Your task to perform on an android device: turn off improve location accuracy Image 0: 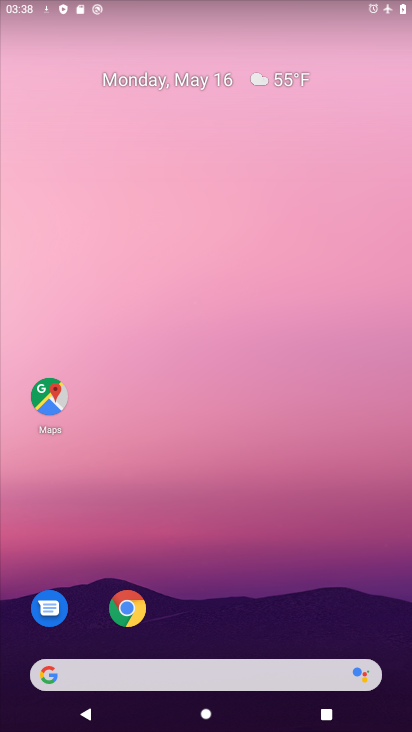
Step 0: drag from (255, 616) to (255, 275)
Your task to perform on an android device: turn off improve location accuracy Image 1: 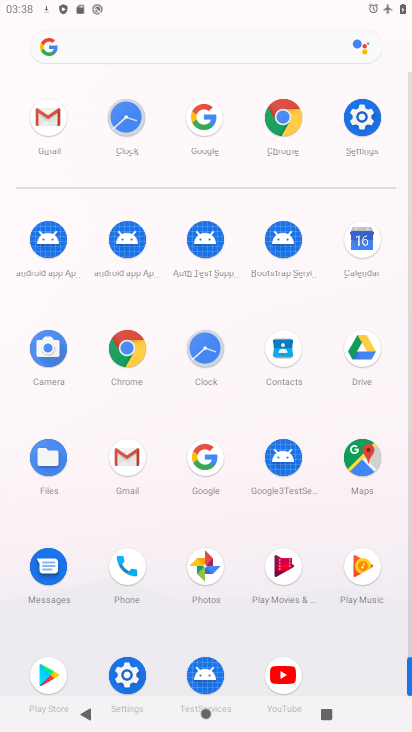
Step 1: click (363, 132)
Your task to perform on an android device: turn off improve location accuracy Image 2: 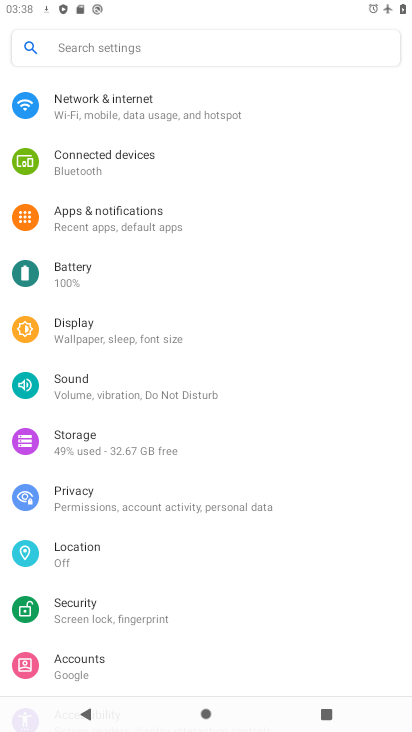
Step 2: click (110, 556)
Your task to perform on an android device: turn off improve location accuracy Image 3: 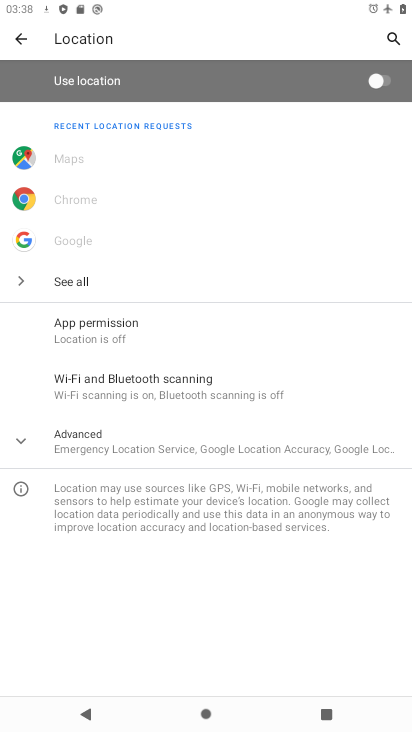
Step 3: click (140, 451)
Your task to perform on an android device: turn off improve location accuracy Image 4: 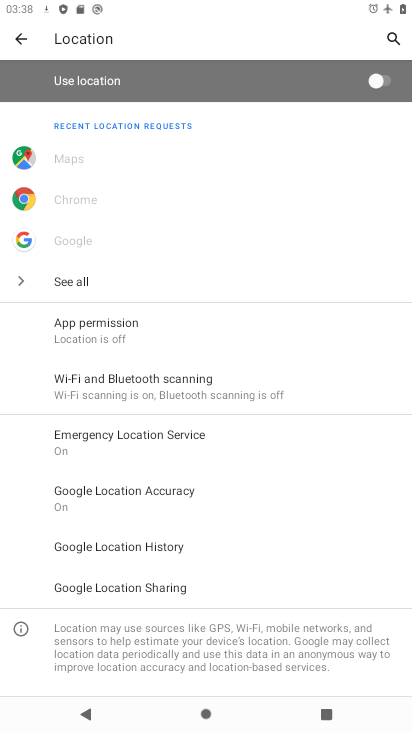
Step 4: drag from (188, 549) to (213, 472)
Your task to perform on an android device: turn off improve location accuracy Image 5: 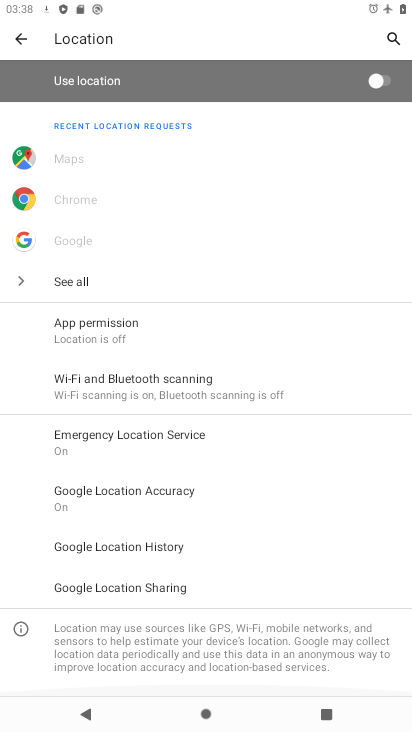
Step 5: click (174, 484)
Your task to perform on an android device: turn off improve location accuracy Image 6: 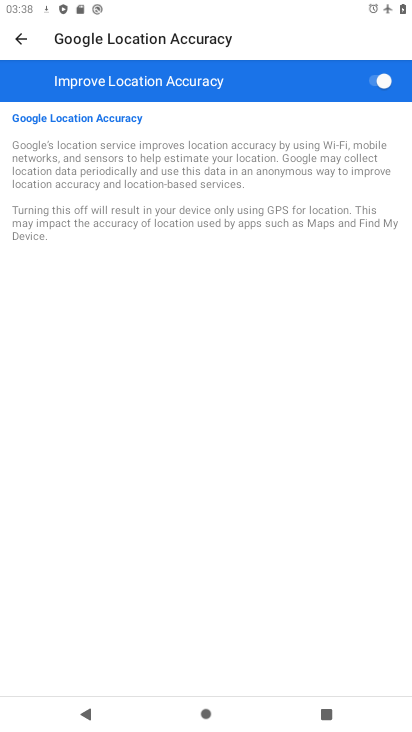
Step 6: click (374, 73)
Your task to perform on an android device: turn off improve location accuracy Image 7: 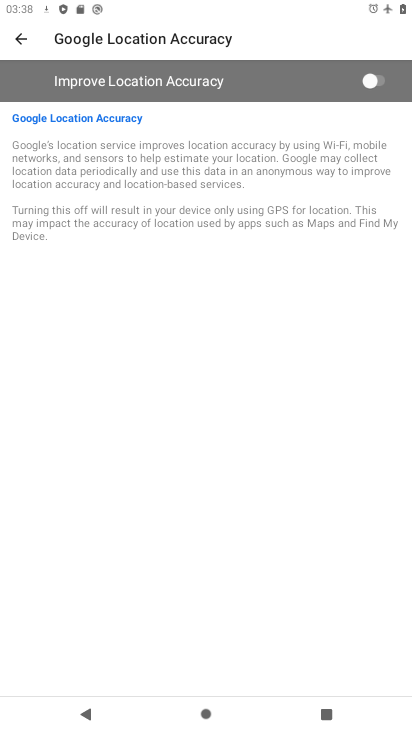
Step 7: task complete